Your task to perform on an android device: open a bookmark in the chrome app Image 0: 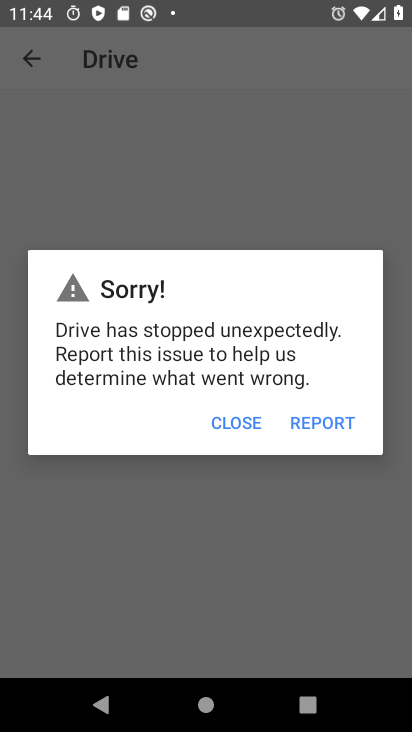
Step 0: press home button
Your task to perform on an android device: open a bookmark in the chrome app Image 1: 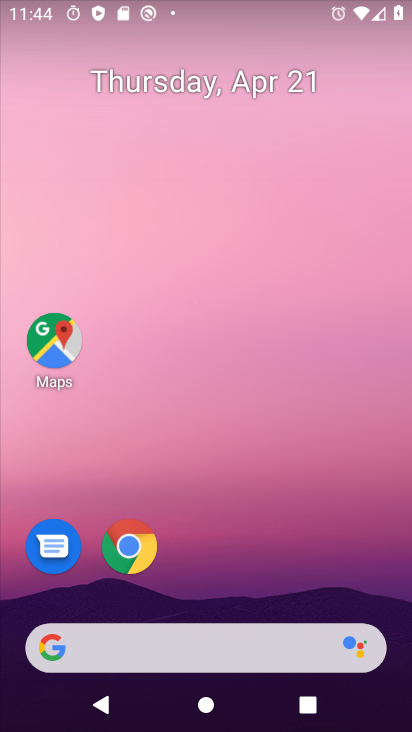
Step 1: click (130, 546)
Your task to perform on an android device: open a bookmark in the chrome app Image 2: 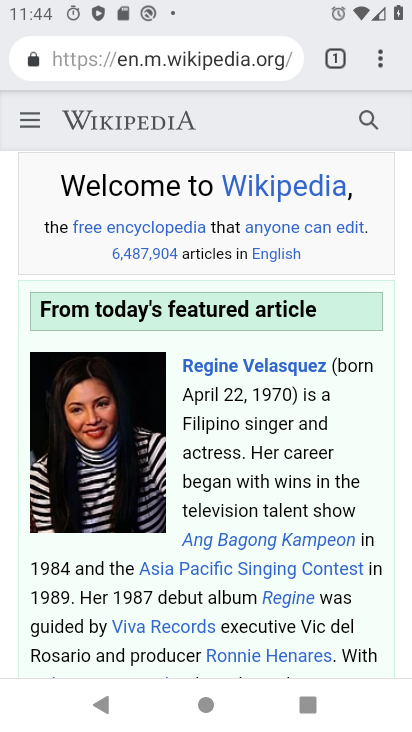
Step 2: click (377, 57)
Your task to perform on an android device: open a bookmark in the chrome app Image 3: 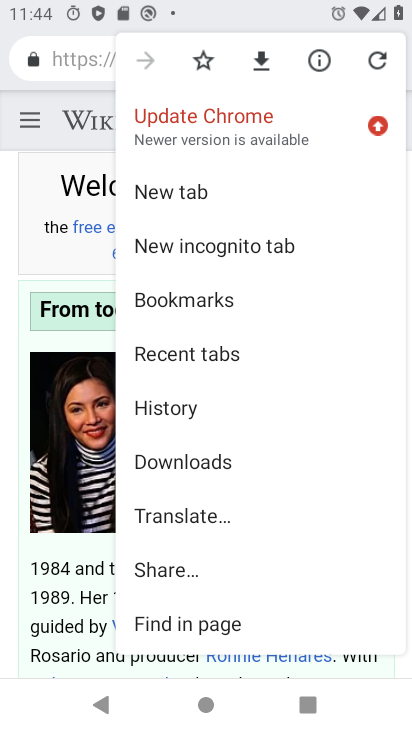
Step 3: click (210, 303)
Your task to perform on an android device: open a bookmark in the chrome app Image 4: 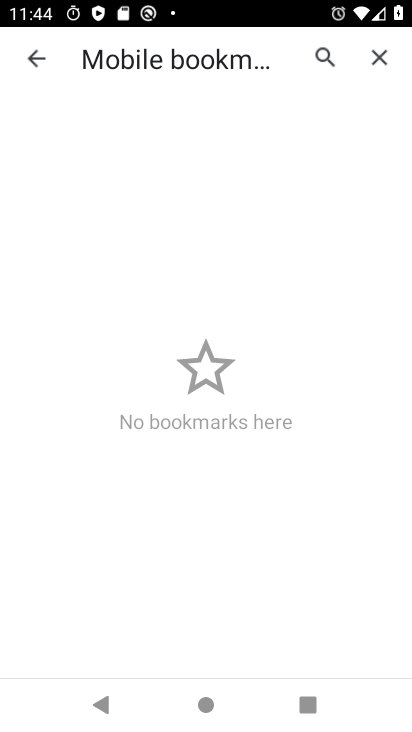
Step 4: task complete